Your task to perform on an android device: Open Google Maps Image 0: 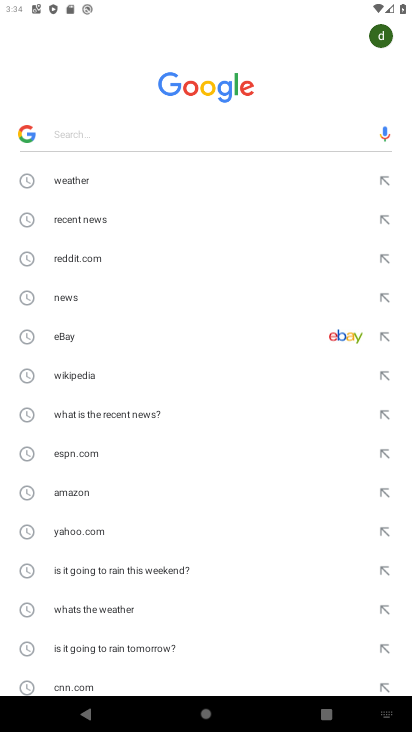
Step 0: press home button
Your task to perform on an android device: Open Google Maps Image 1: 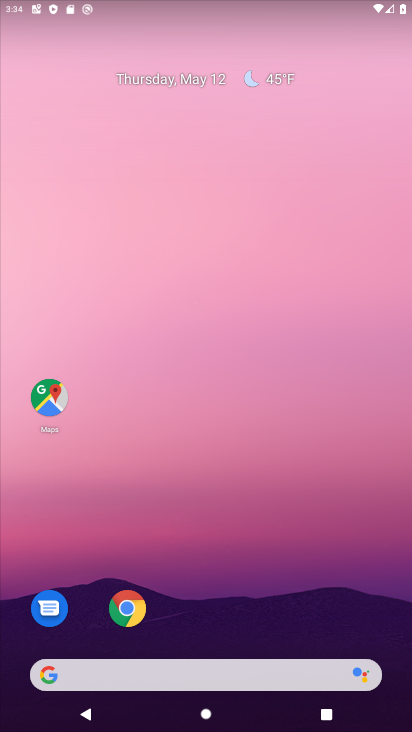
Step 1: click (71, 393)
Your task to perform on an android device: Open Google Maps Image 2: 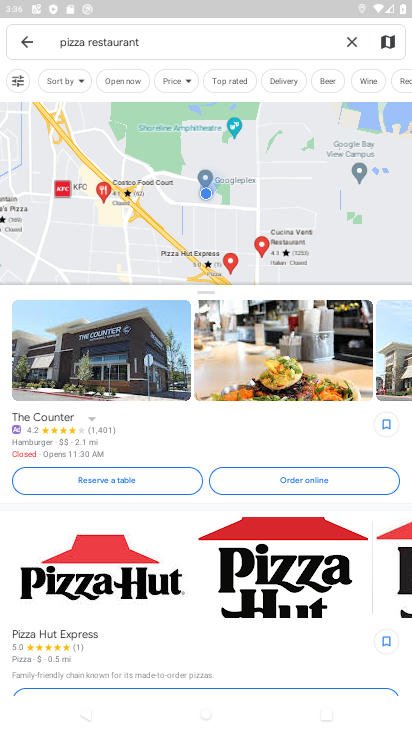
Step 2: task complete